Your task to perform on an android device: change the clock display to show seconds Image 0: 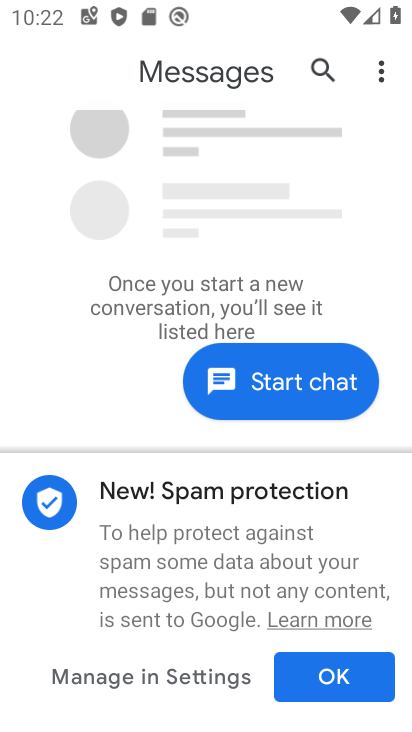
Step 0: press home button
Your task to perform on an android device: change the clock display to show seconds Image 1: 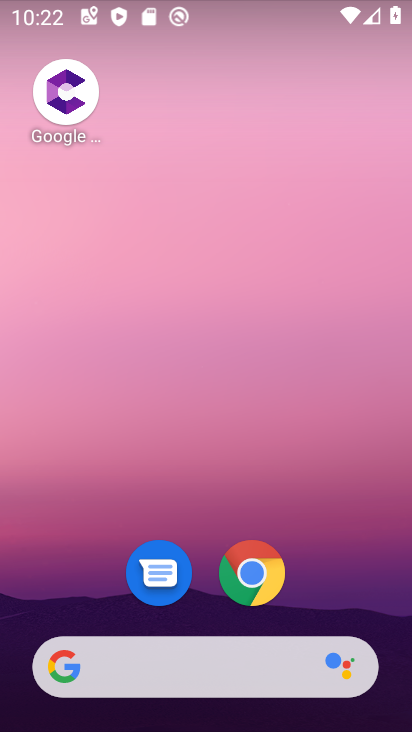
Step 1: drag from (191, 601) to (166, 47)
Your task to perform on an android device: change the clock display to show seconds Image 2: 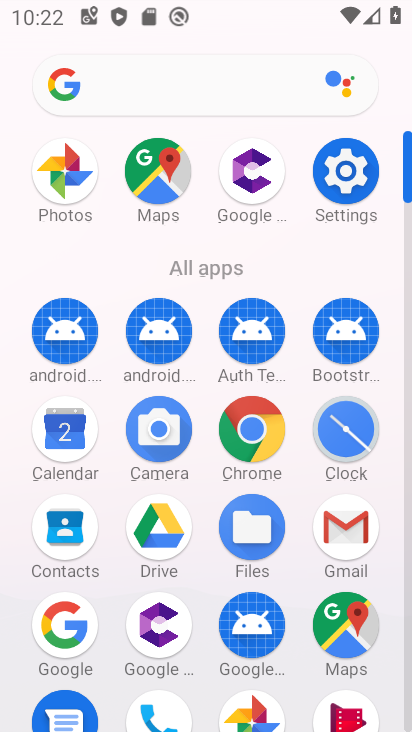
Step 2: click (358, 434)
Your task to perform on an android device: change the clock display to show seconds Image 3: 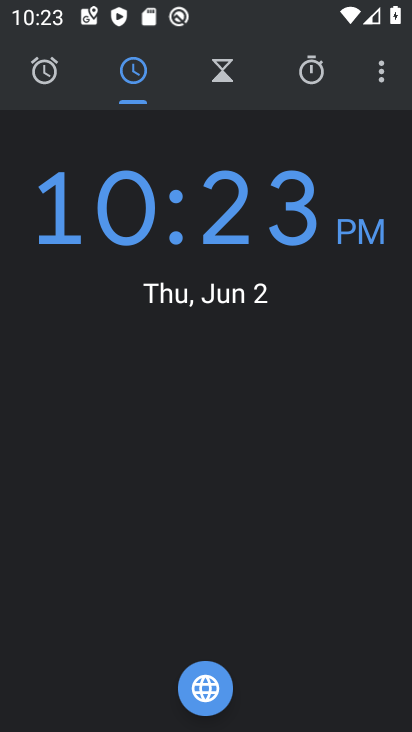
Step 3: click (296, 73)
Your task to perform on an android device: change the clock display to show seconds Image 4: 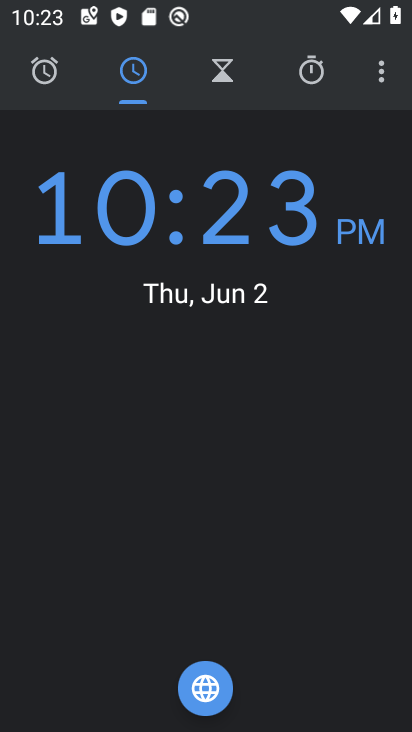
Step 4: click (384, 73)
Your task to perform on an android device: change the clock display to show seconds Image 5: 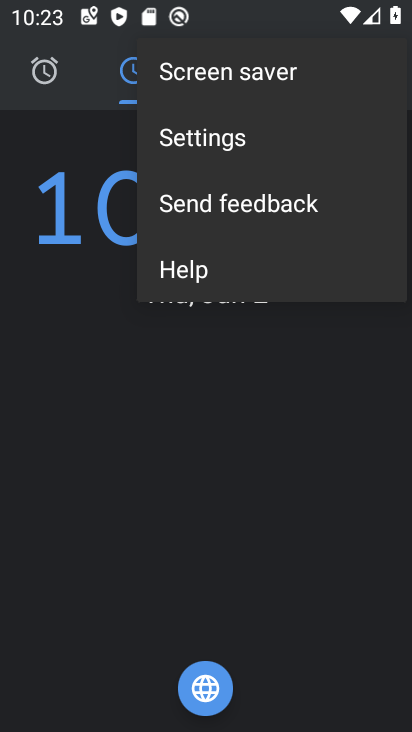
Step 5: click (243, 131)
Your task to perform on an android device: change the clock display to show seconds Image 6: 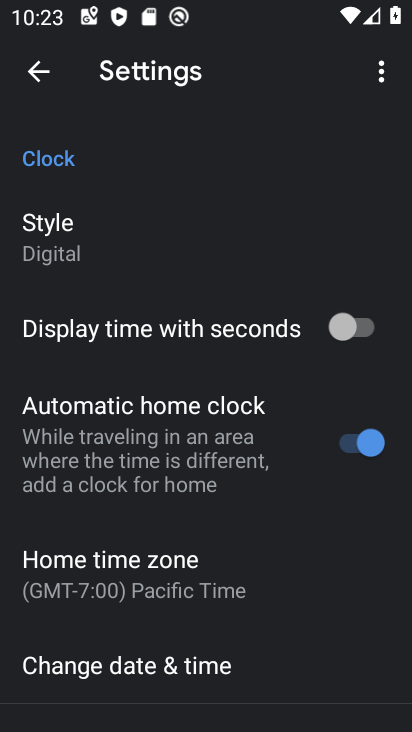
Step 6: click (378, 334)
Your task to perform on an android device: change the clock display to show seconds Image 7: 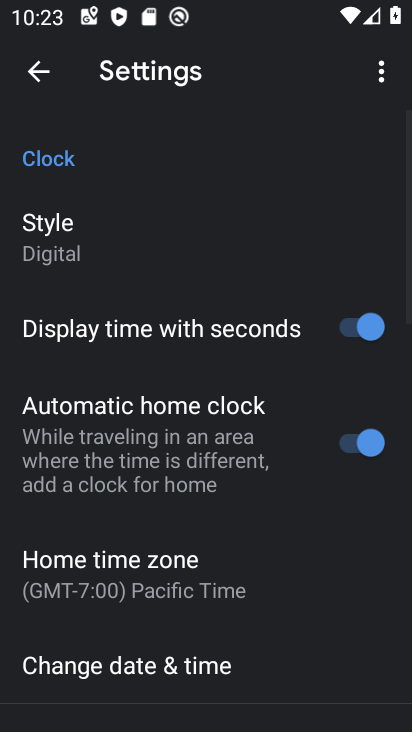
Step 7: task complete